Your task to perform on an android device: Go to Amazon Image 0: 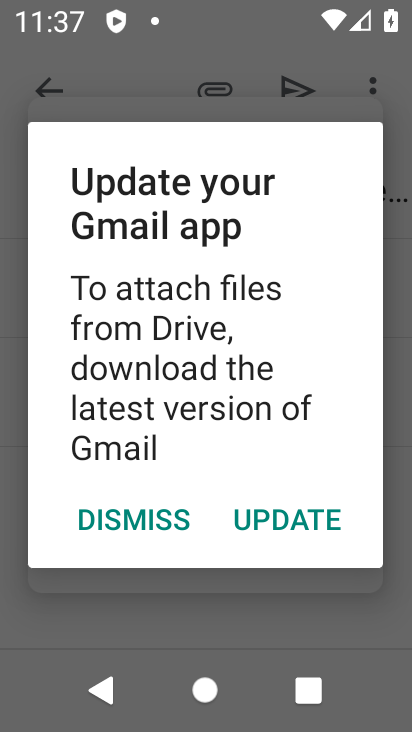
Step 0: press home button
Your task to perform on an android device: Go to Amazon Image 1: 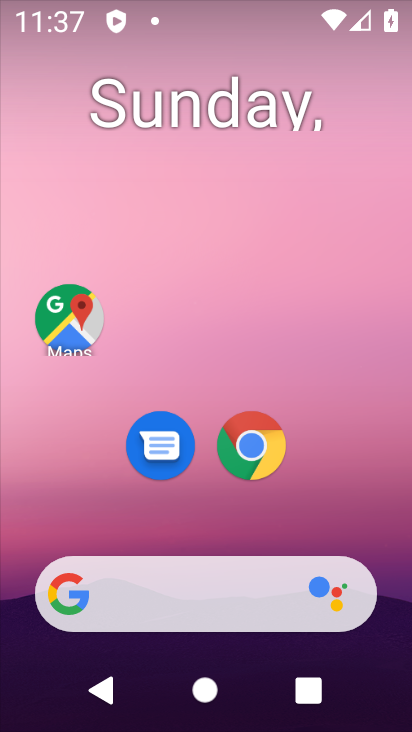
Step 1: drag from (361, 449) to (346, 144)
Your task to perform on an android device: Go to Amazon Image 2: 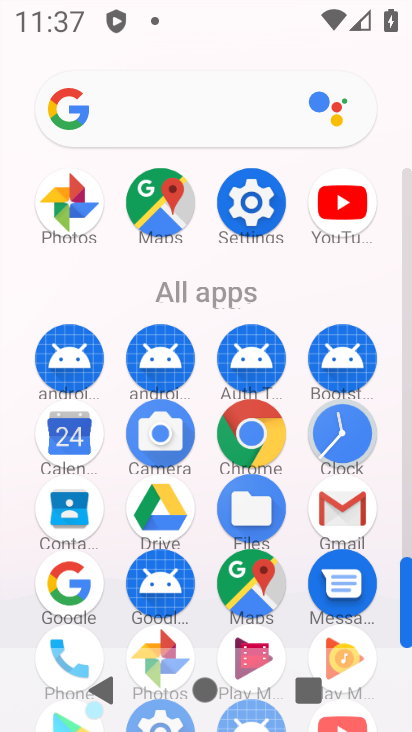
Step 2: click (261, 433)
Your task to perform on an android device: Go to Amazon Image 3: 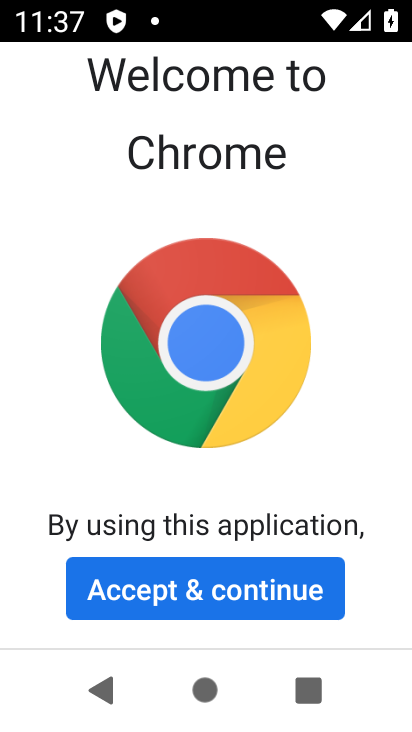
Step 3: click (253, 596)
Your task to perform on an android device: Go to Amazon Image 4: 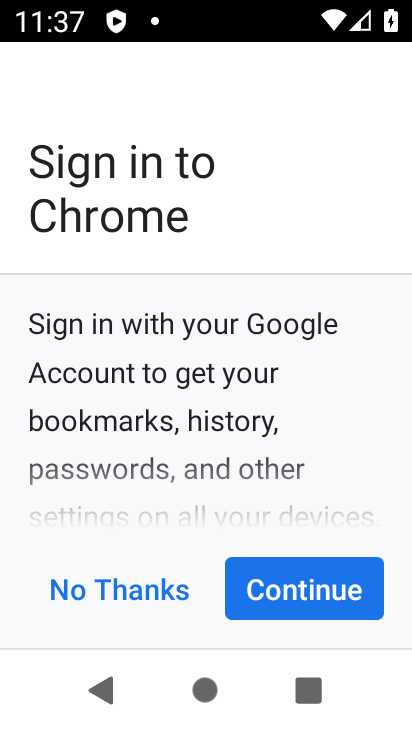
Step 4: click (265, 591)
Your task to perform on an android device: Go to Amazon Image 5: 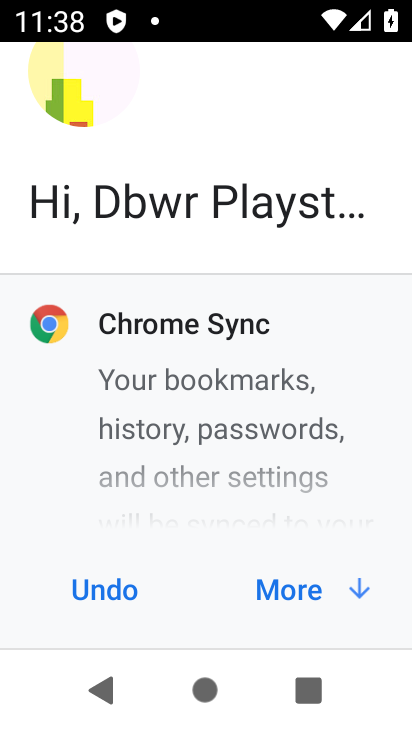
Step 5: click (265, 591)
Your task to perform on an android device: Go to Amazon Image 6: 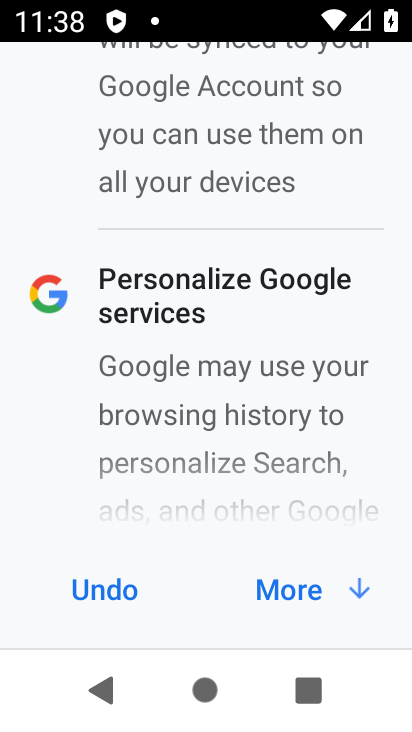
Step 6: click (265, 591)
Your task to perform on an android device: Go to Amazon Image 7: 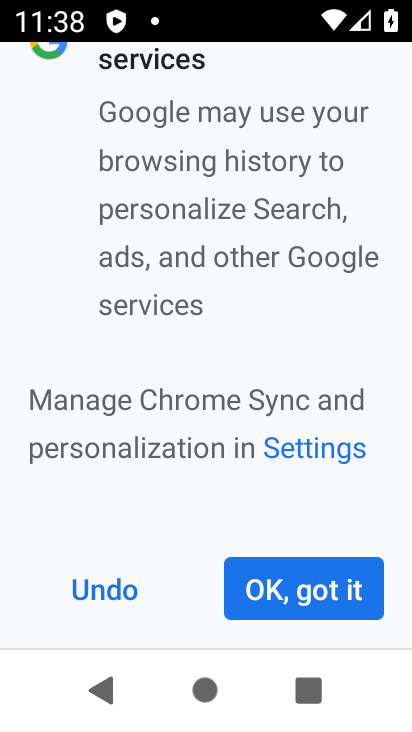
Step 7: click (264, 593)
Your task to perform on an android device: Go to Amazon Image 8: 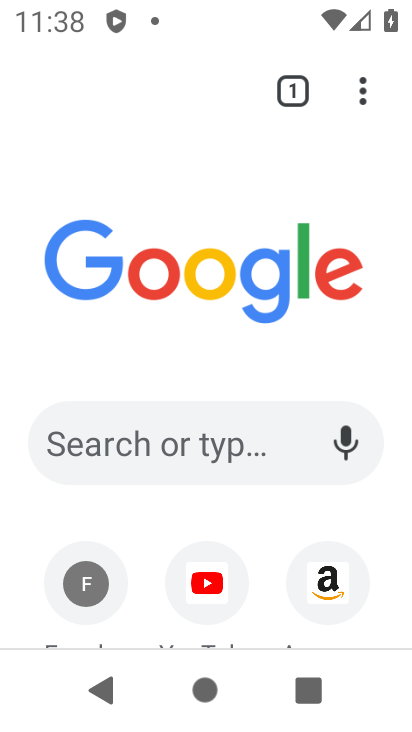
Step 8: click (343, 578)
Your task to perform on an android device: Go to Amazon Image 9: 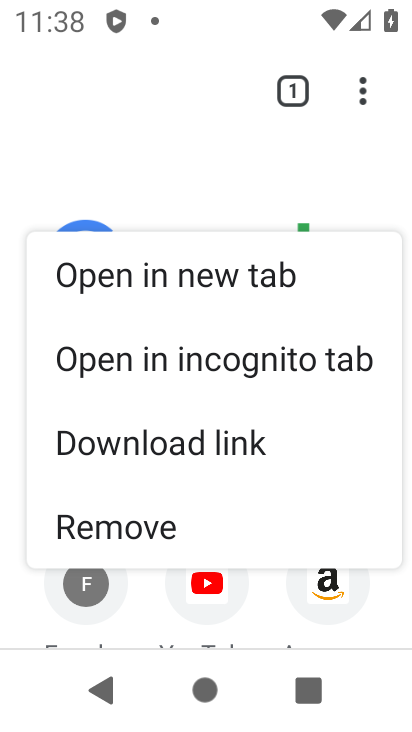
Step 9: click (341, 579)
Your task to perform on an android device: Go to Amazon Image 10: 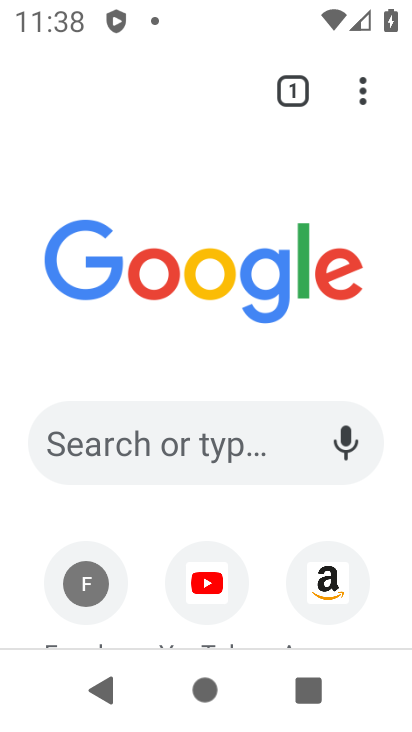
Step 10: click (338, 592)
Your task to perform on an android device: Go to Amazon Image 11: 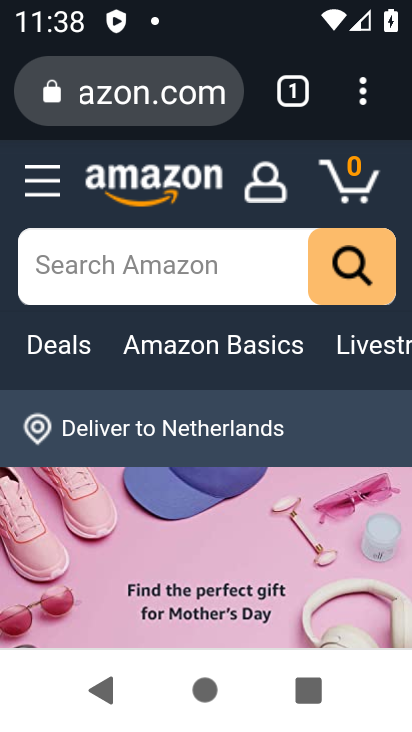
Step 11: task complete